Your task to perform on an android device: open the mobile data screen to see how much data has been used Image 0: 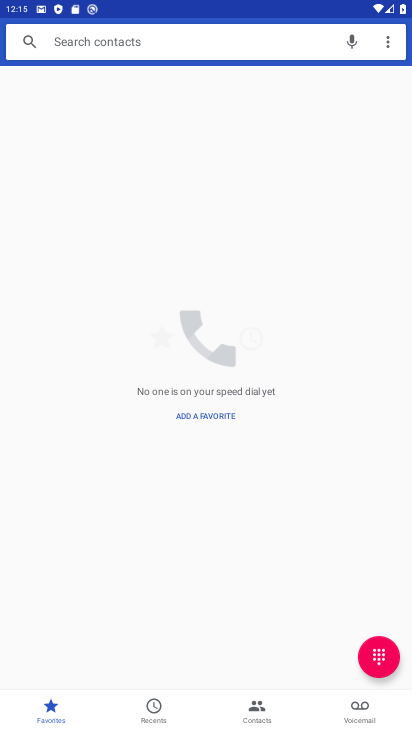
Step 0: press home button
Your task to perform on an android device: open the mobile data screen to see how much data has been used Image 1: 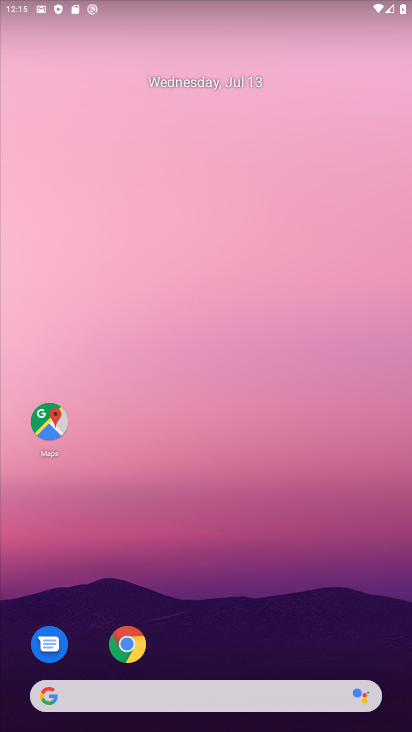
Step 1: drag from (220, 213) to (236, 78)
Your task to perform on an android device: open the mobile data screen to see how much data has been used Image 2: 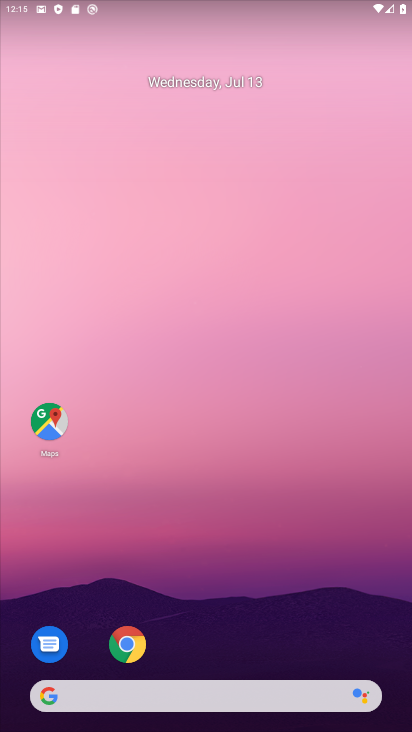
Step 2: drag from (166, 270) to (166, 124)
Your task to perform on an android device: open the mobile data screen to see how much data has been used Image 3: 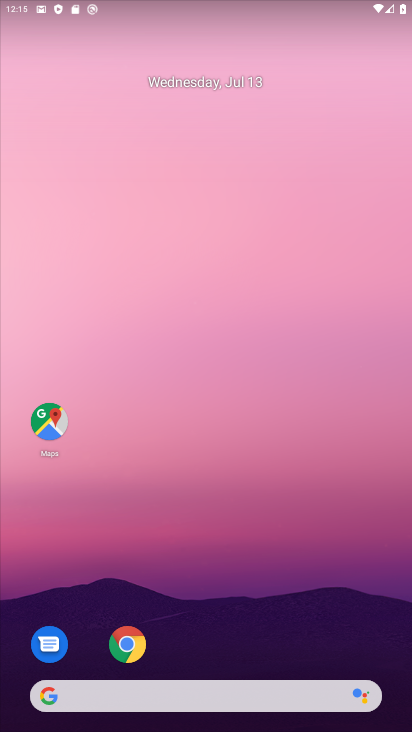
Step 3: drag from (175, 533) to (155, 14)
Your task to perform on an android device: open the mobile data screen to see how much data has been used Image 4: 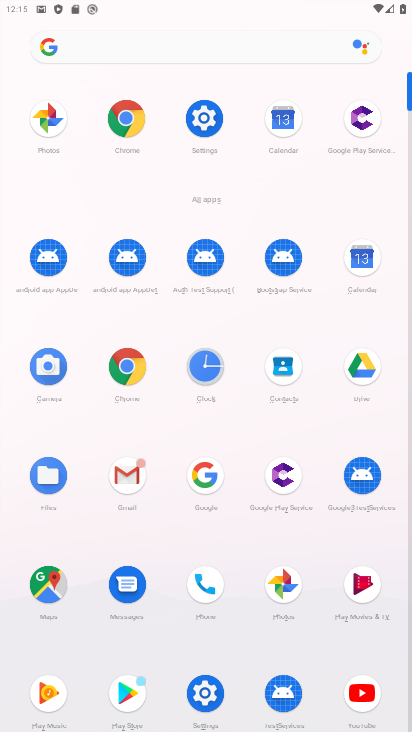
Step 4: click (200, 130)
Your task to perform on an android device: open the mobile data screen to see how much data has been used Image 5: 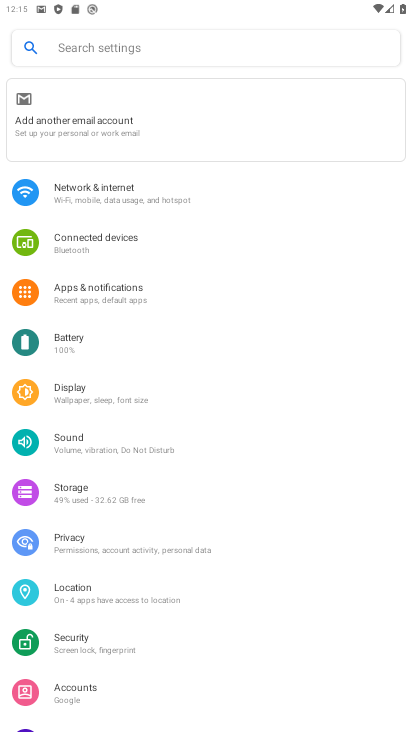
Step 5: click (102, 200)
Your task to perform on an android device: open the mobile data screen to see how much data has been used Image 6: 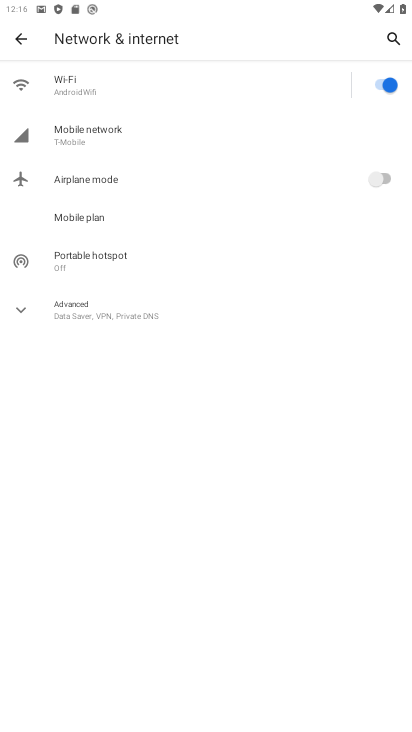
Step 6: click (102, 133)
Your task to perform on an android device: open the mobile data screen to see how much data has been used Image 7: 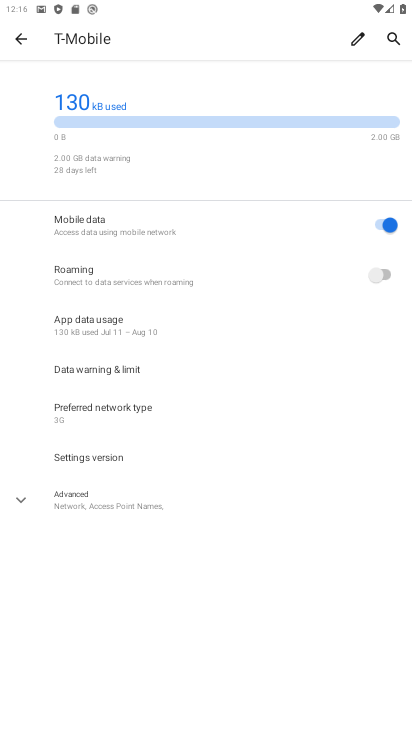
Step 7: task complete